Your task to perform on an android device: Toggle the flashlight Image 0: 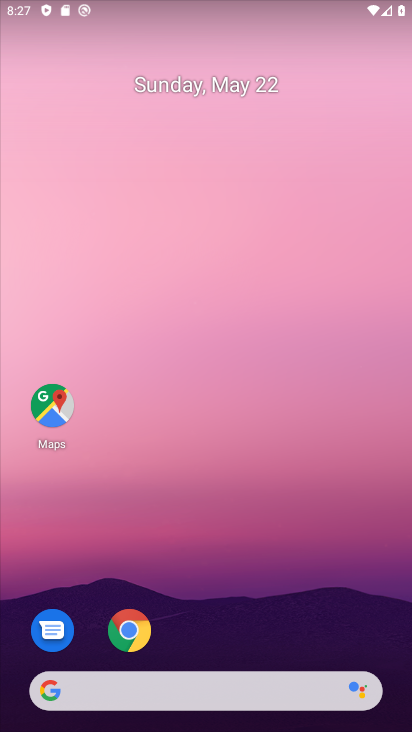
Step 0: drag from (279, 656) to (254, 114)
Your task to perform on an android device: Toggle the flashlight Image 1: 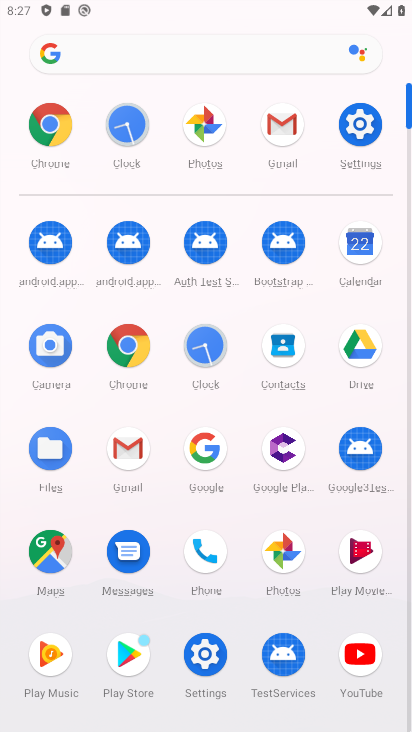
Step 1: click (337, 128)
Your task to perform on an android device: Toggle the flashlight Image 2: 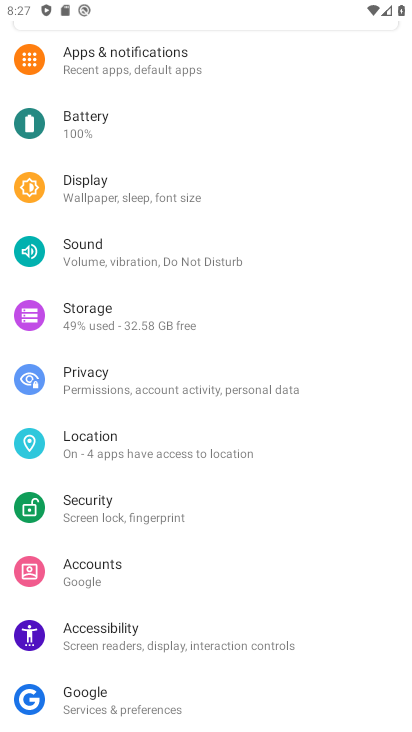
Step 2: task complete